Your task to perform on an android device: see sites visited before in the chrome app Image 0: 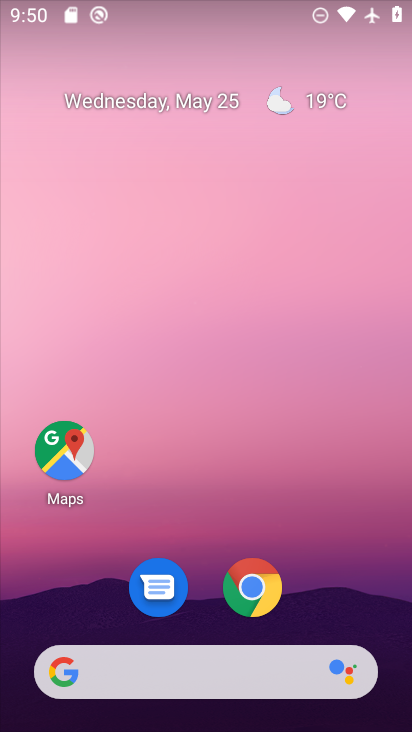
Step 0: click (253, 591)
Your task to perform on an android device: see sites visited before in the chrome app Image 1: 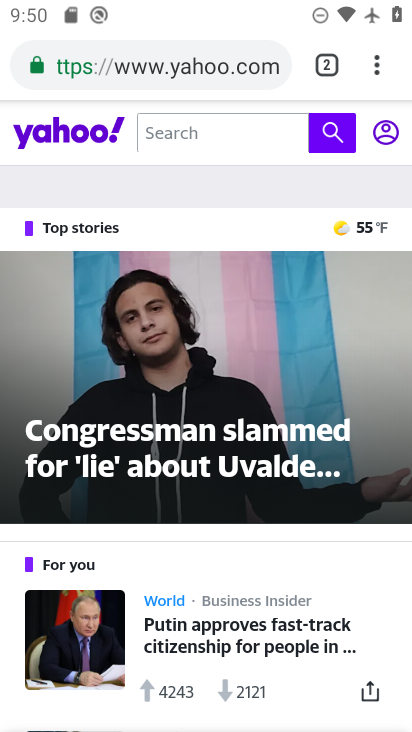
Step 1: click (377, 69)
Your task to perform on an android device: see sites visited before in the chrome app Image 2: 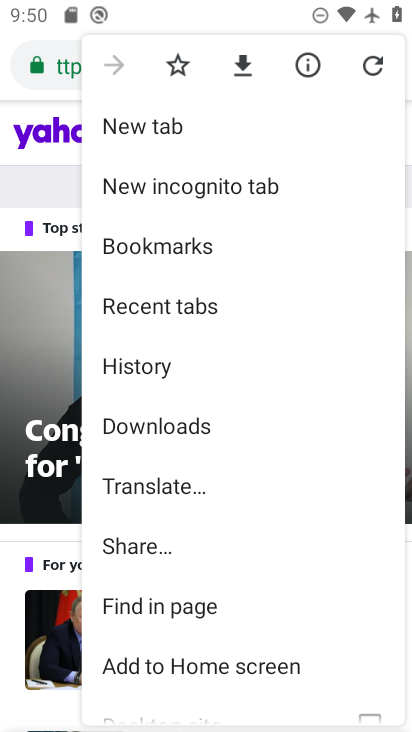
Step 2: click (254, 614)
Your task to perform on an android device: see sites visited before in the chrome app Image 3: 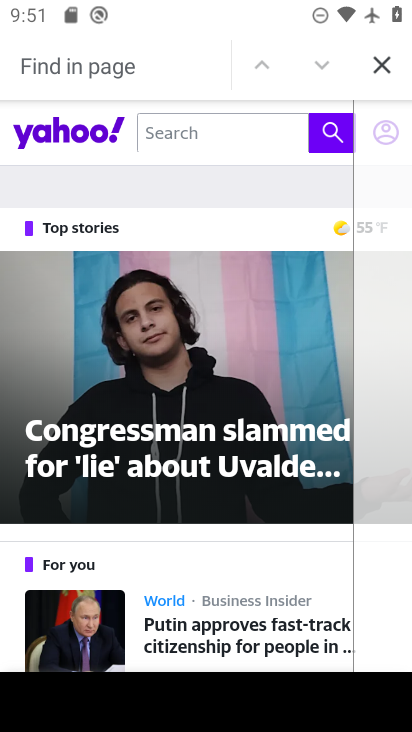
Step 3: click (380, 62)
Your task to perform on an android device: see sites visited before in the chrome app Image 4: 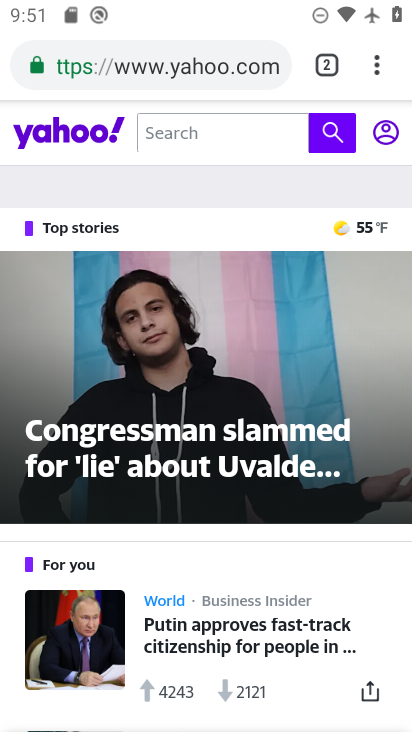
Step 4: click (380, 62)
Your task to perform on an android device: see sites visited before in the chrome app Image 5: 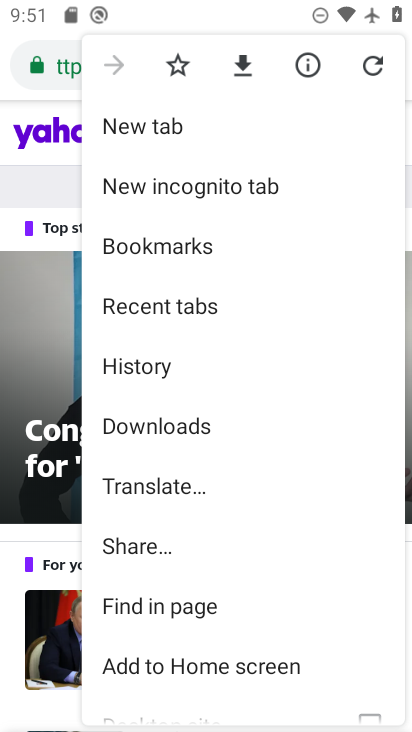
Step 5: click (150, 316)
Your task to perform on an android device: see sites visited before in the chrome app Image 6: 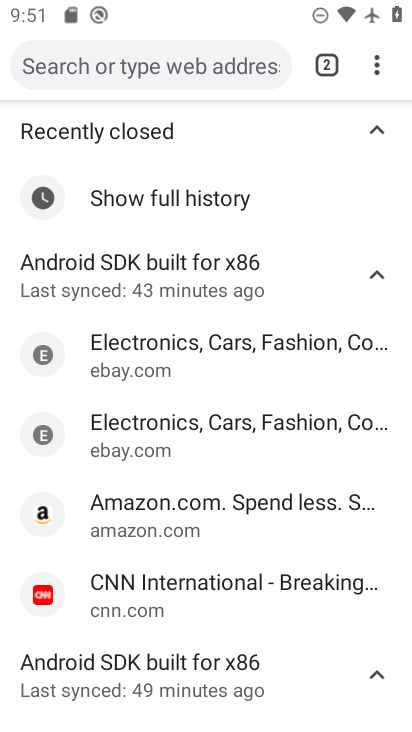
Step 6: task complete